Your task to perform on an android device: set default search engine in the chrome app Image 0: 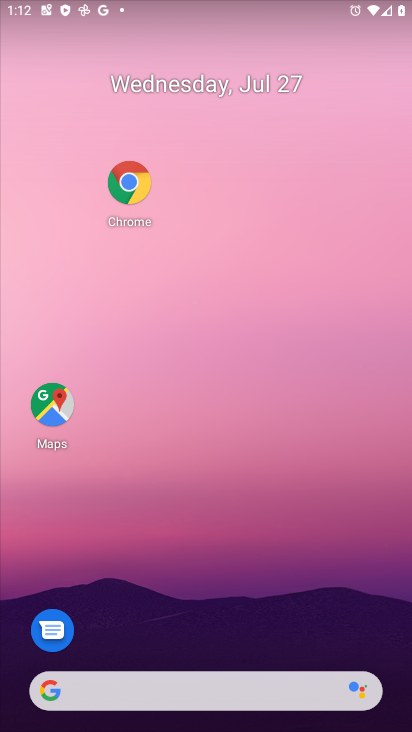
Step 0: click (127, 200)
Your task to perform on an android device: set default search engine in the chrome app Image 1: 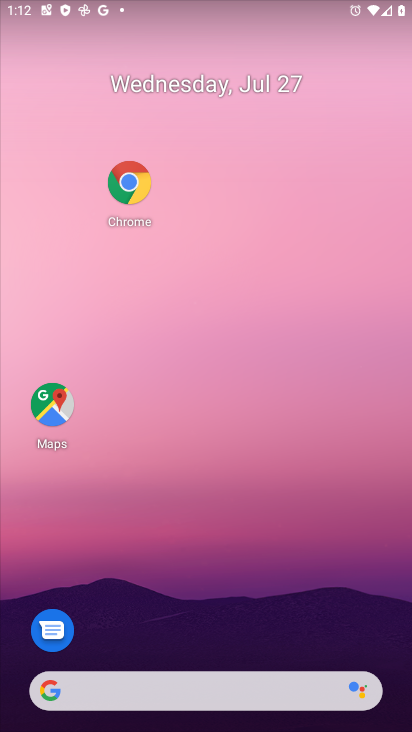
Step 1: click (127, 200)
Your task to perform on an android device: set default search engine in the chrome app Image 2: 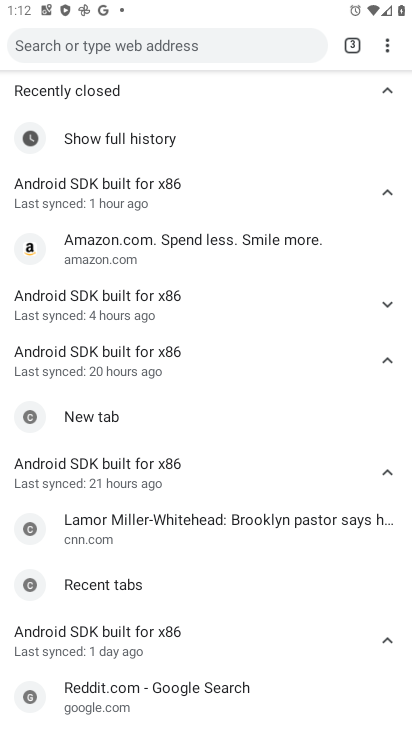
Step 2: click (392, 41)
Your task to perform on an android device: set default search engine in the chrome app Image 3: 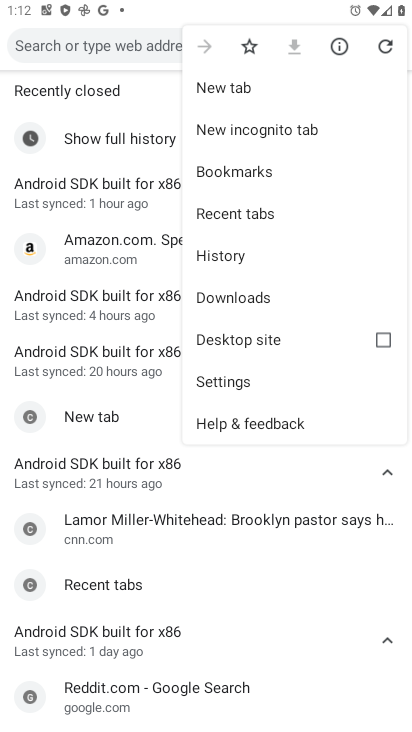
Step 3: click (262, 380)
Your task to perform on an android device: set default search engine in the chrome app Image 4: 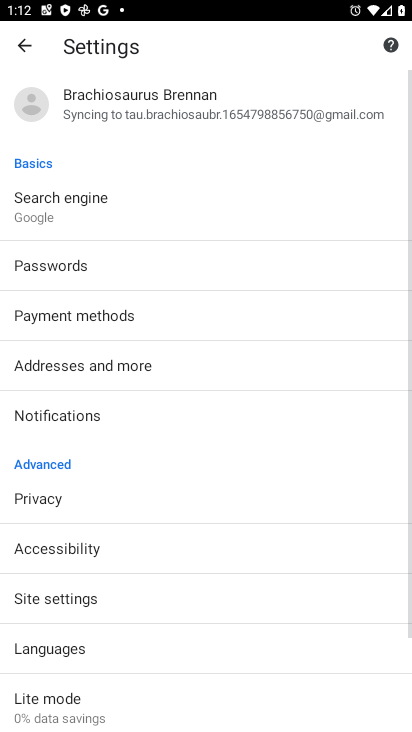
Step 4: click (64, 211)
Your task to perform on an android device: set default search engine in the chrome app Image 5: 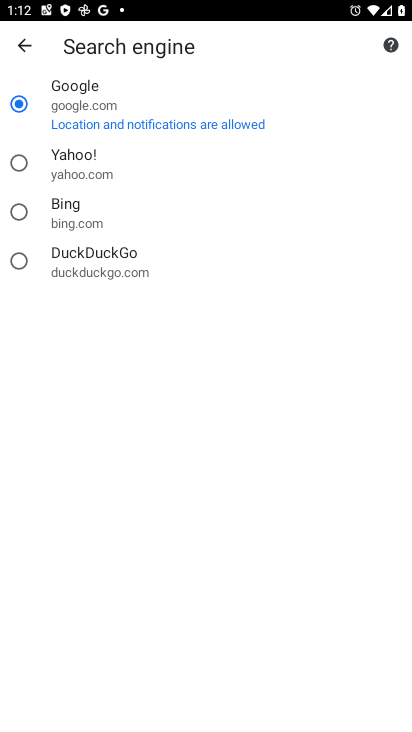
Step 5: task complete